Your task to perform on an android device: turn notification dots off Image 0: 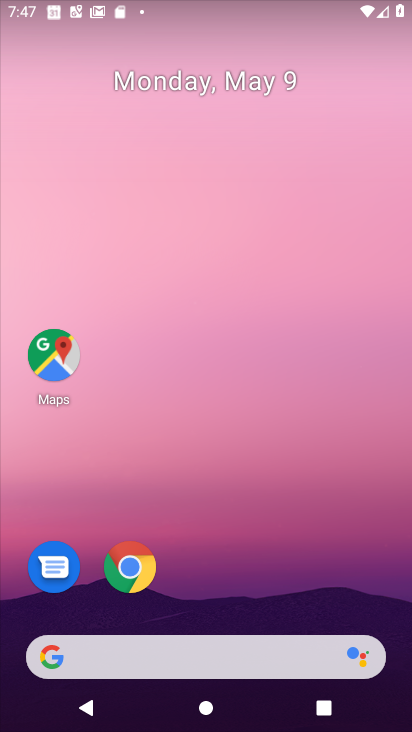
Step 0: drag from (200, 561) to (198, 77)
Your task to perform on an android device: turn notification dots off Image 1: 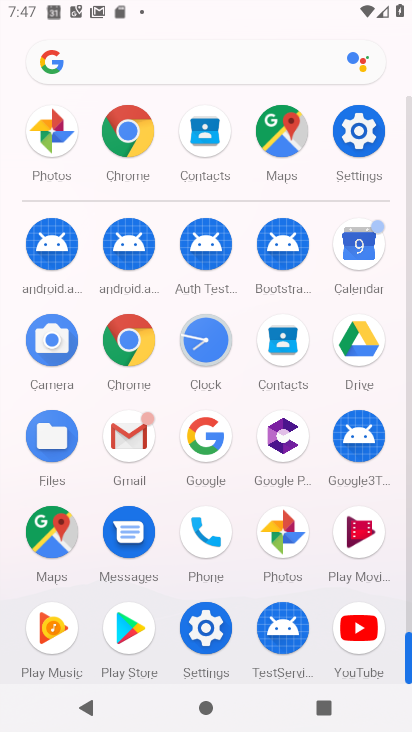
Step 1: click (357, 127)
Your task to perform on an android device: turn notification dots off Image 2: 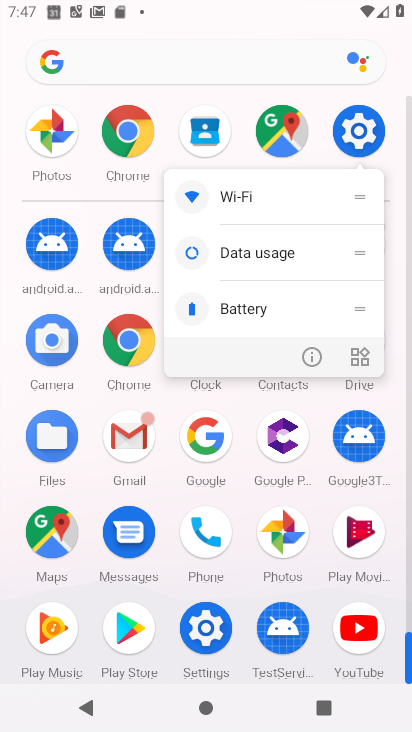
Step 2: click (318, 363)
Your task to perform on an android device: turn notification dots off Image 3: 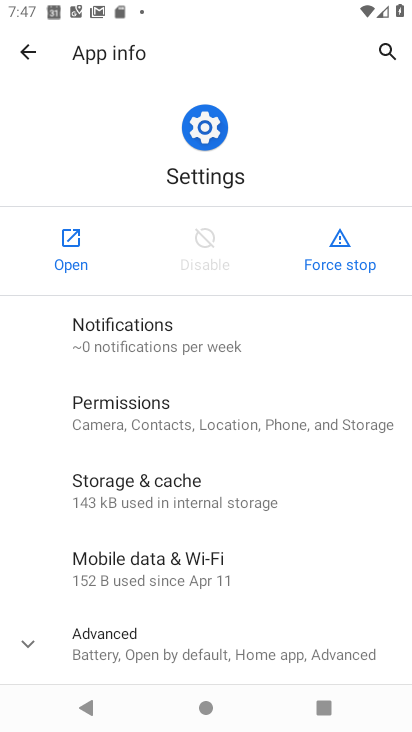
Step 3: click (69, 259)
Your task to perform on an android device: turn notification dots off Image 4: 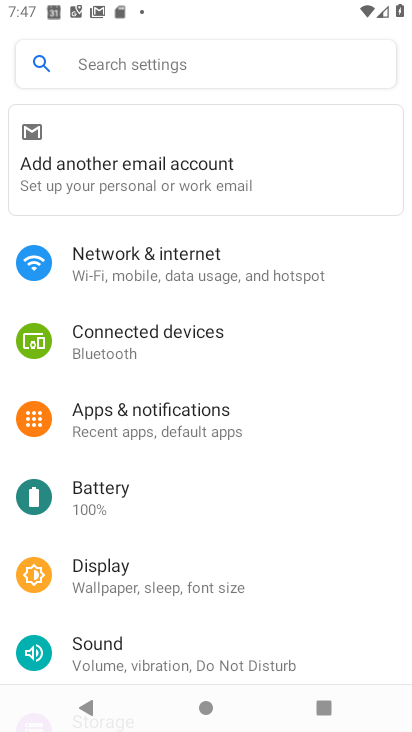
Step 4: click (178, 421)
Your task to perform on an android device: turn notification dots off Image 5: 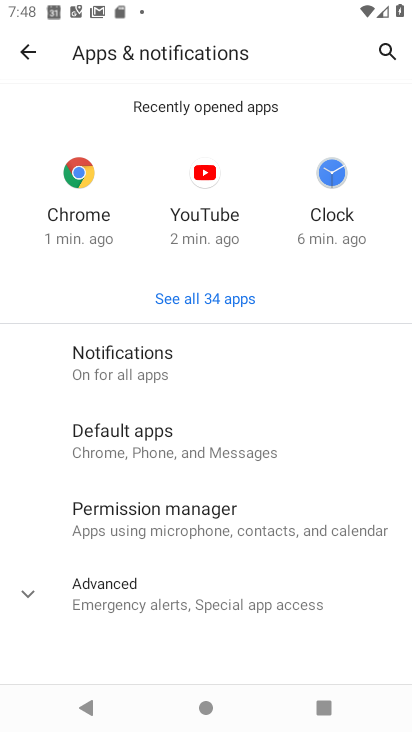
Step 5: click (195, 360)
Your task to perform on an android device: turn notification dots off Image 6: 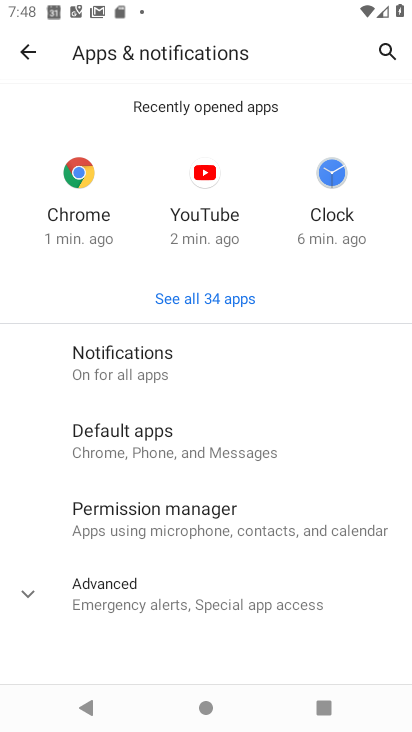
Step 6: click (195, 360)
Your task to perform on an android device: turn notification dots off Image 7: 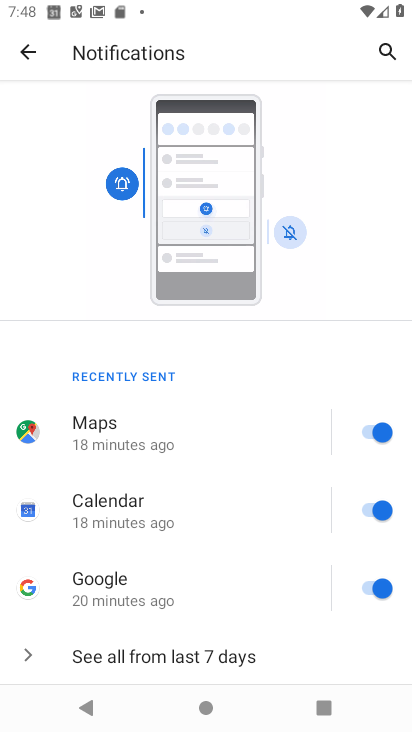
Step 7: drag from (178, 541) to (232, 279)
Your task to perform on an android device: turn notification dots off Image 8: 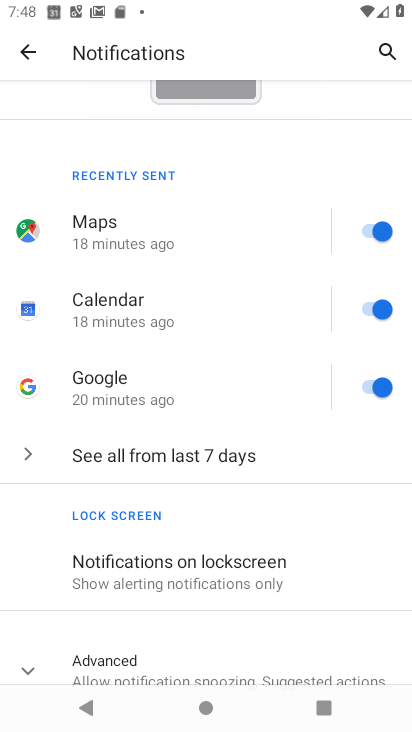
Step 8: drag from (234, 395) to (307, 204)
Your task to perform on an android device: turn notification dots off Image 9: 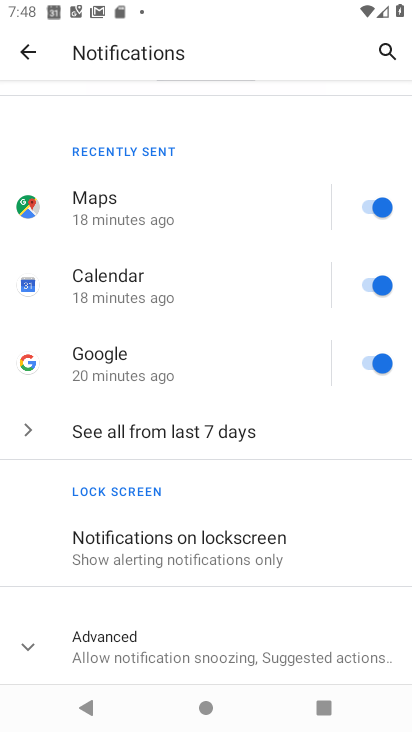
Step 9: click (180, 649)
Your task to perform on an android device: turn notification dots off Image 10: 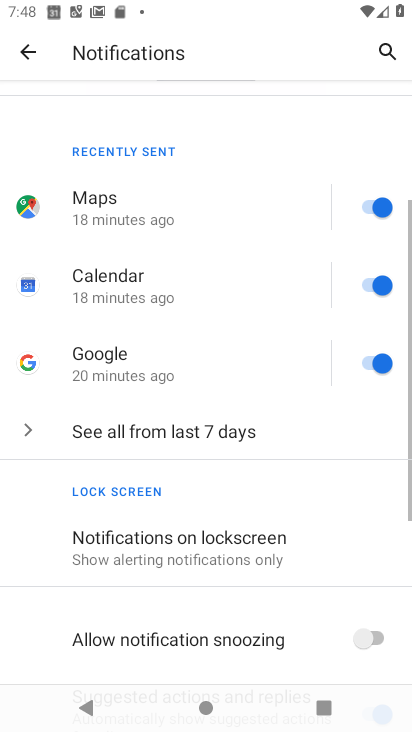
Step 10: drag from (194, 634) to (306, 196)
Your task to perform on an android device: turn notification dots off Image 11: 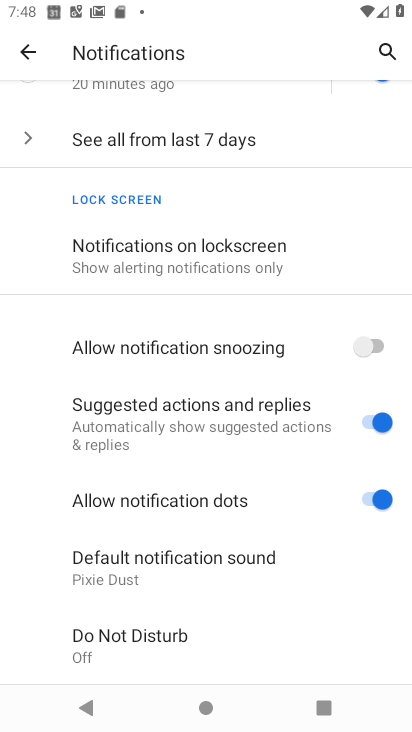
Step 11: click (396, 493)
Your task to perform on an android device: turn notification dots off Image 12: 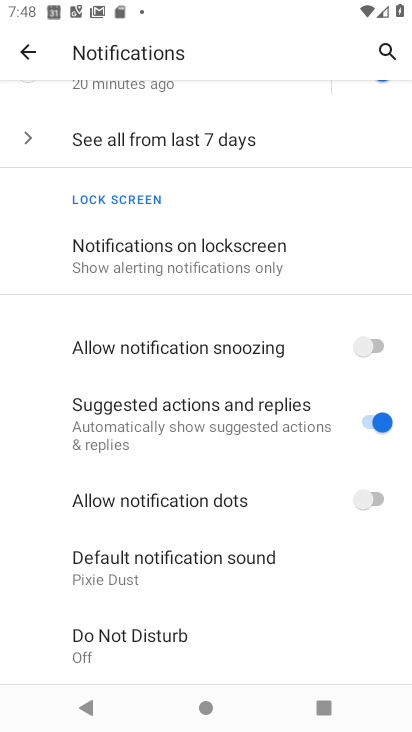
Step 12: task complete